Your task to perform on an android device: Show the shopping cart on target. Search for "razer thresher" on target, select the first entry, and add it to the cart. Image 0: 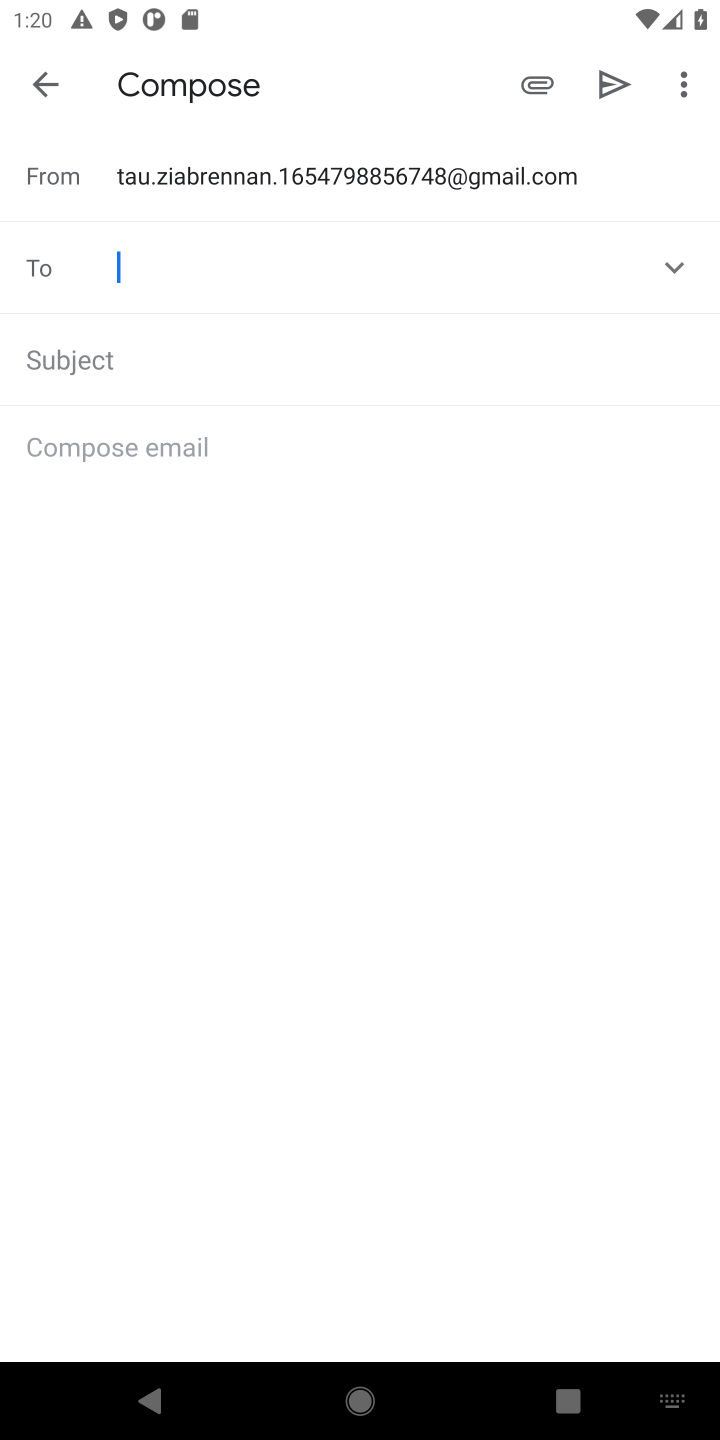
Step 0: press home button
Your task to perform on an android device: Show the shopping cart on target. Search for "razer thresher" on target, select the first entry, and add it to the cart. Image 1: 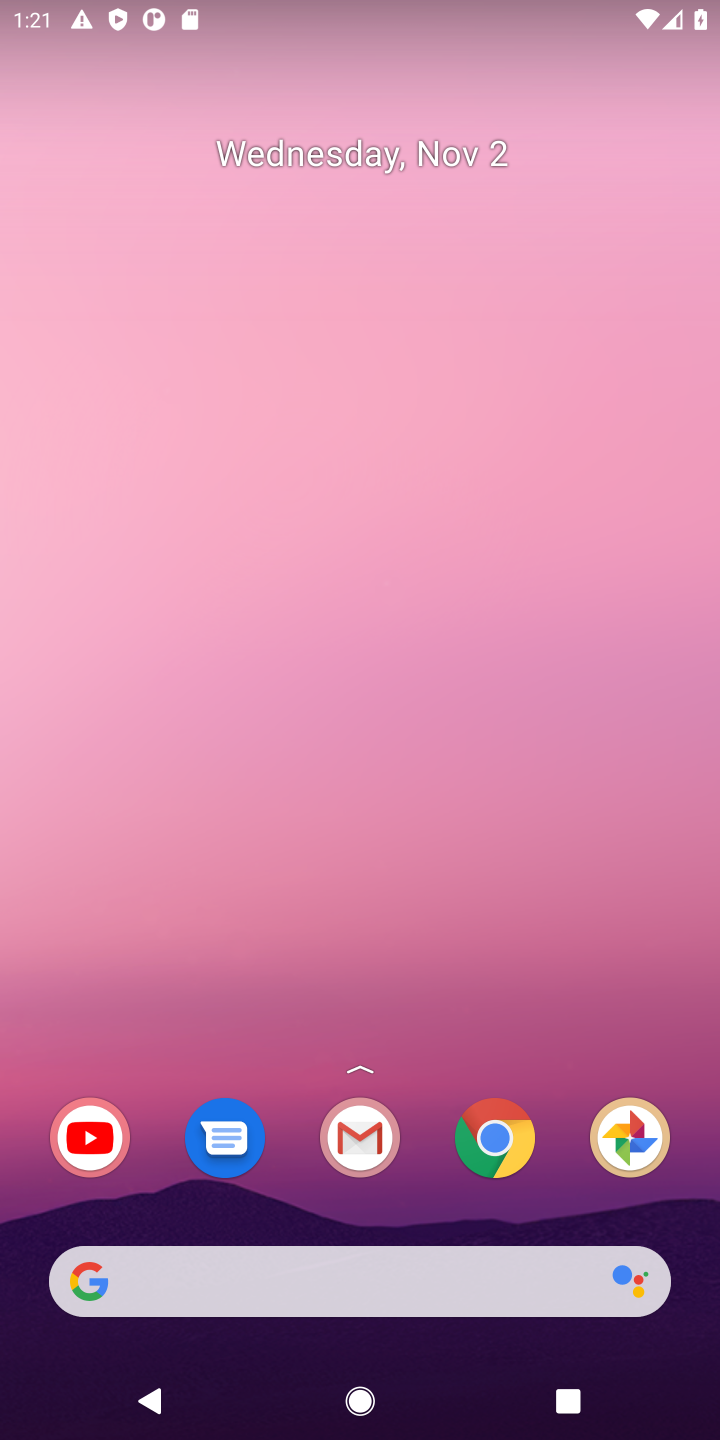
Step 1: click (153, 1294)
Your task to perform on an android device: Show the shopping cart on target. Search for "razer thresher" on target, select the first entry, and add it to the cart. Image 2: 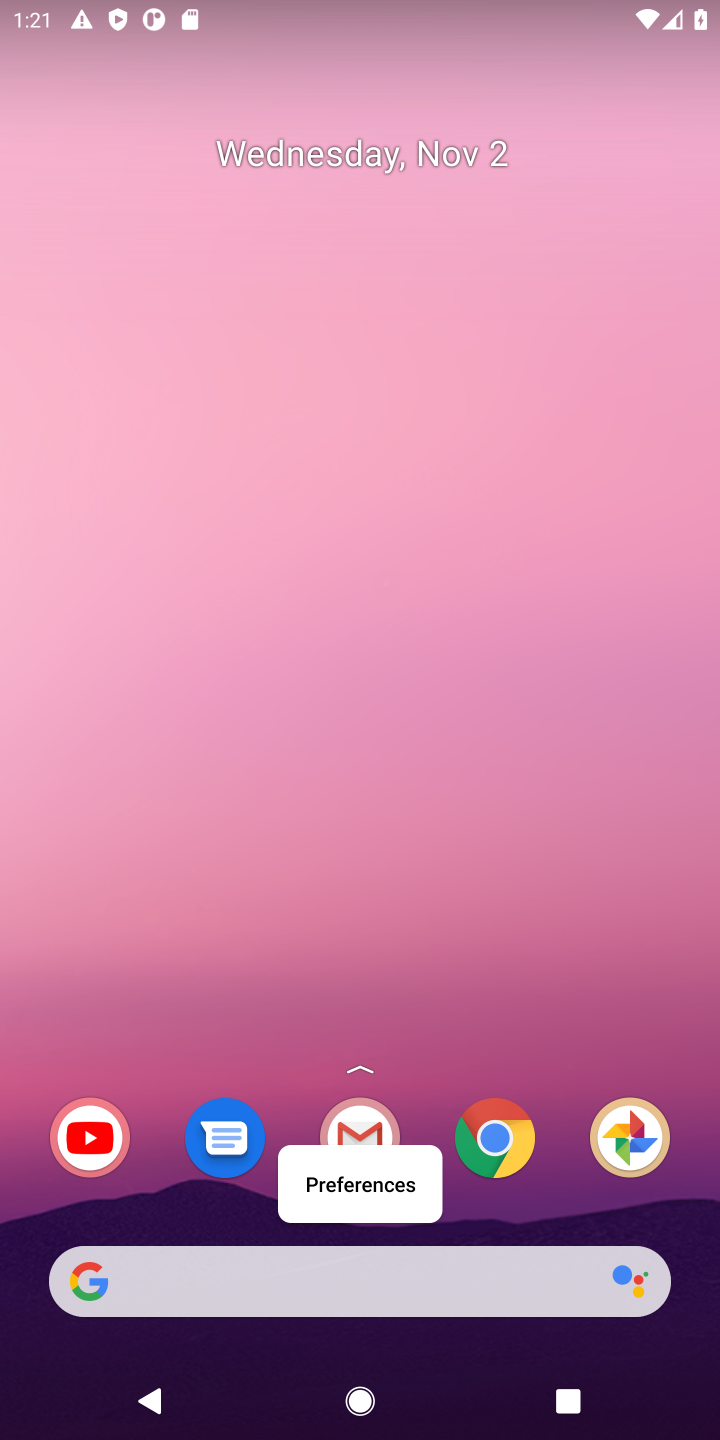
Step 2: click (150, 1270)
Your task to perform on an android device: Show the shopping cart on target. Search for "razer thresher" on target, select the first entry, and add it to the cart. Image 3: 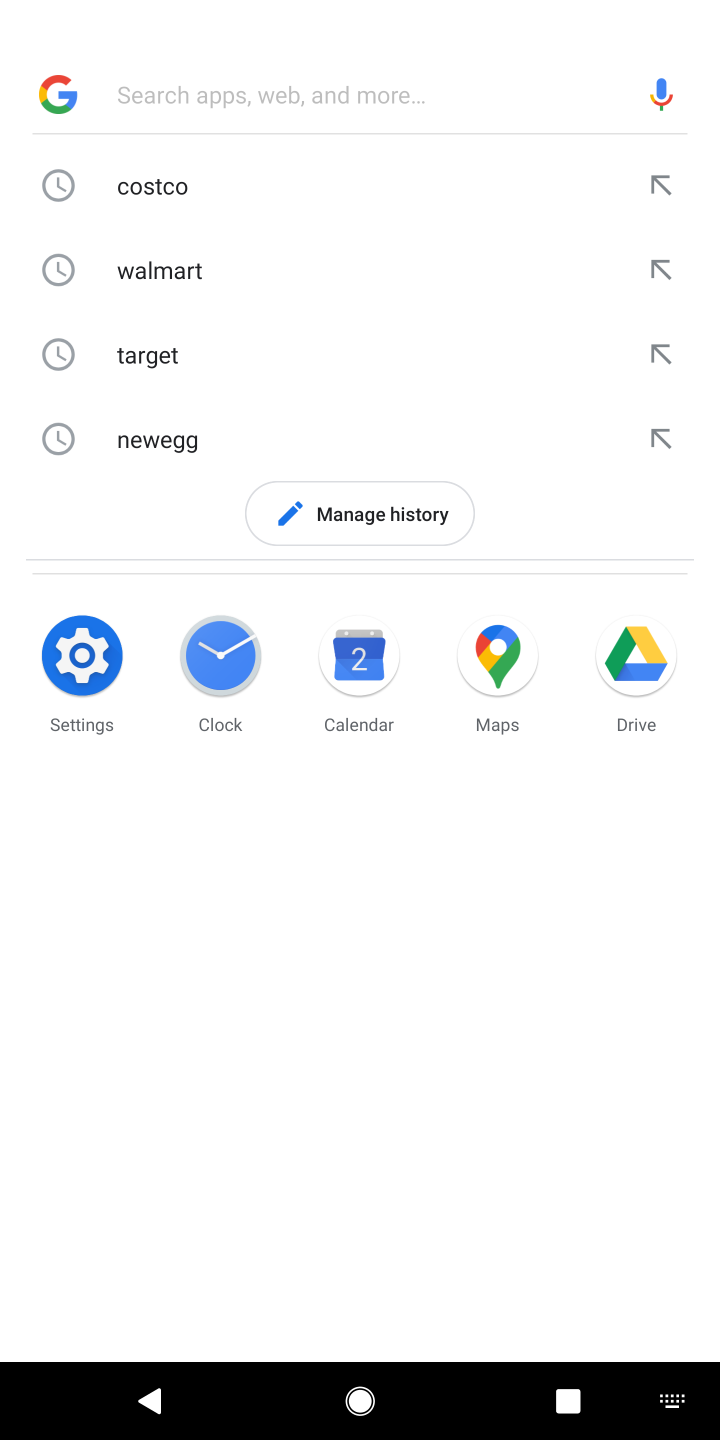
Step 3: press enter
Your task to perform on an android device: Show the shopping cart on target. Search for "razer thresher" on target, select the first entry, and add it to the cart. Image 4: 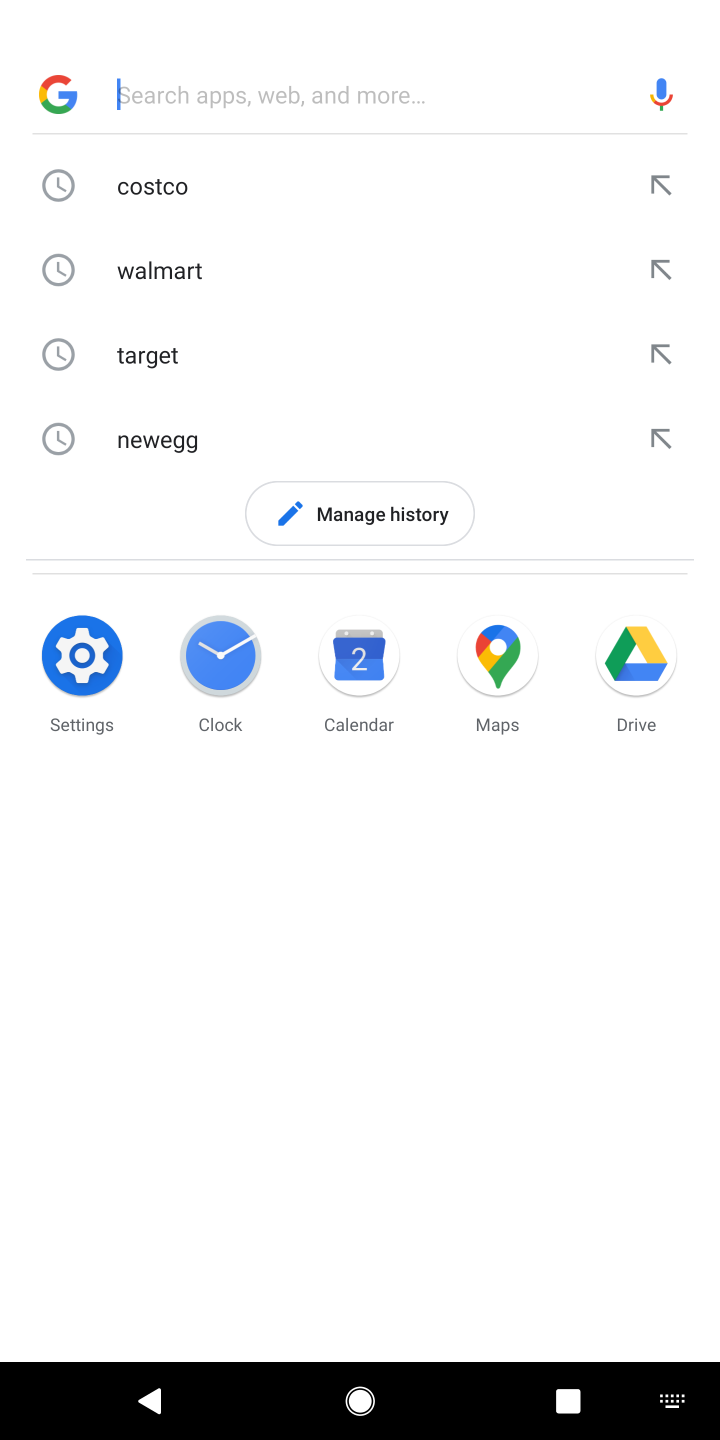
Step 4: type "target"
Your task to perform on an android device: Show the shopping cart on target. Search for "razer thresher" on target, select the first entry, and add it to the cart. Image 5: 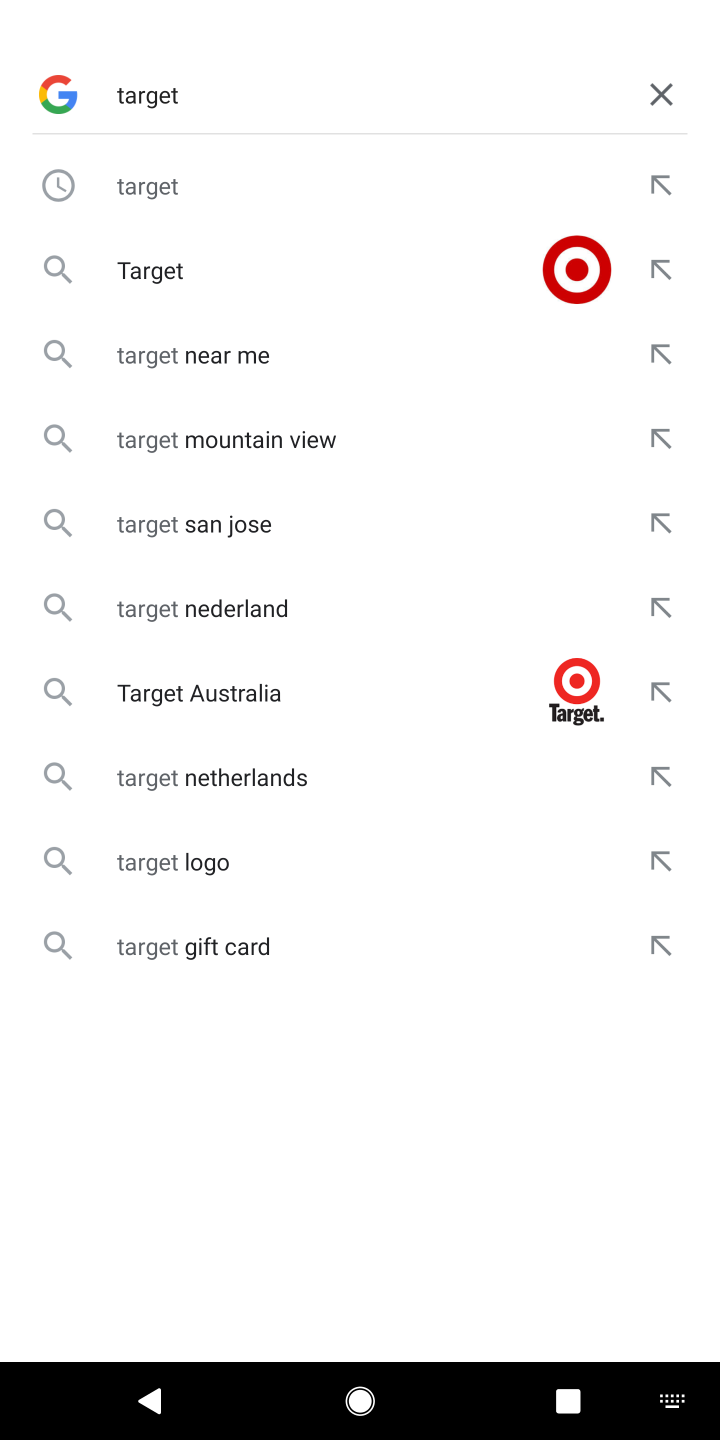
Step 5: press enter
Your task to perform on an android device: Show the shopping cart on target. Search for "razer thresher" on target, select the first entry, and add it to the cart. Image 6: 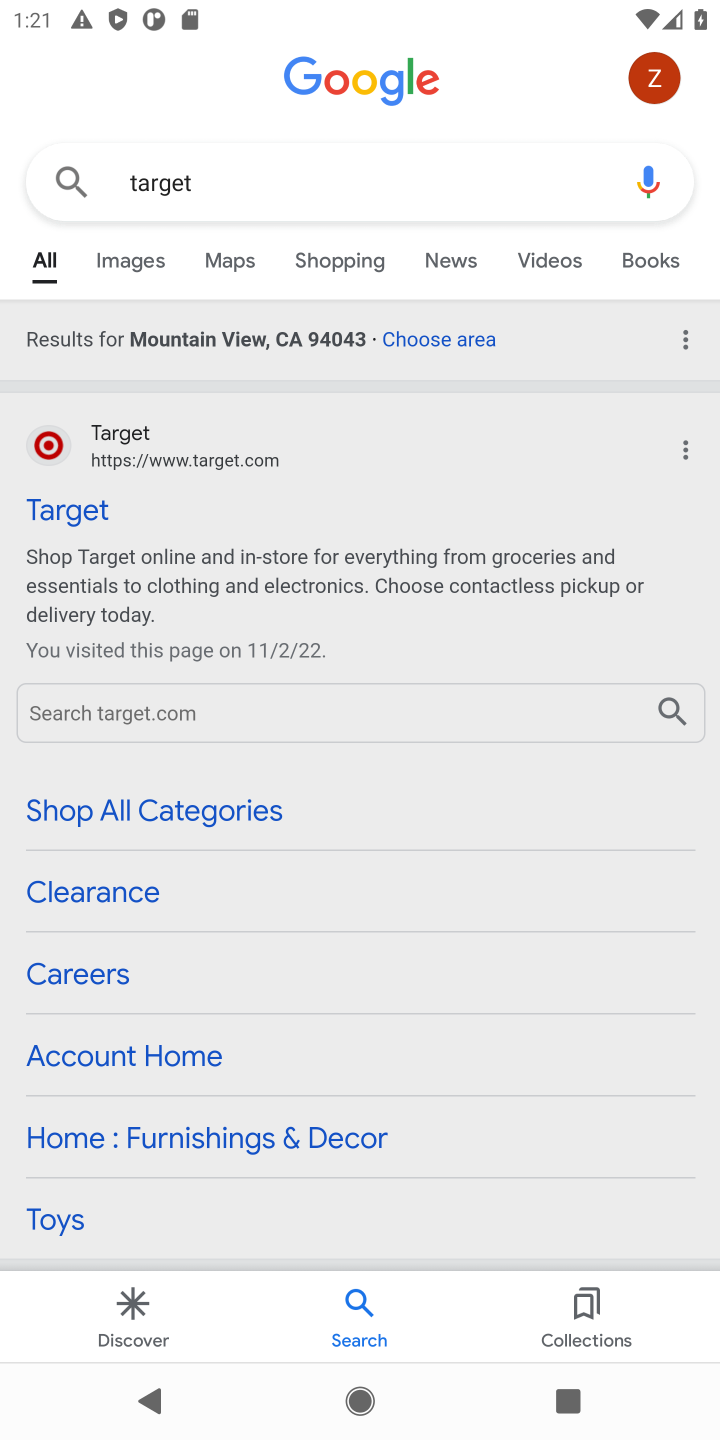
Step 6: click (71, 513)
Your task to perform on an android device: Show the shopping cart on target. Search for "razer thresher" on target, select the first entry, and add it to the cart. Image 7: 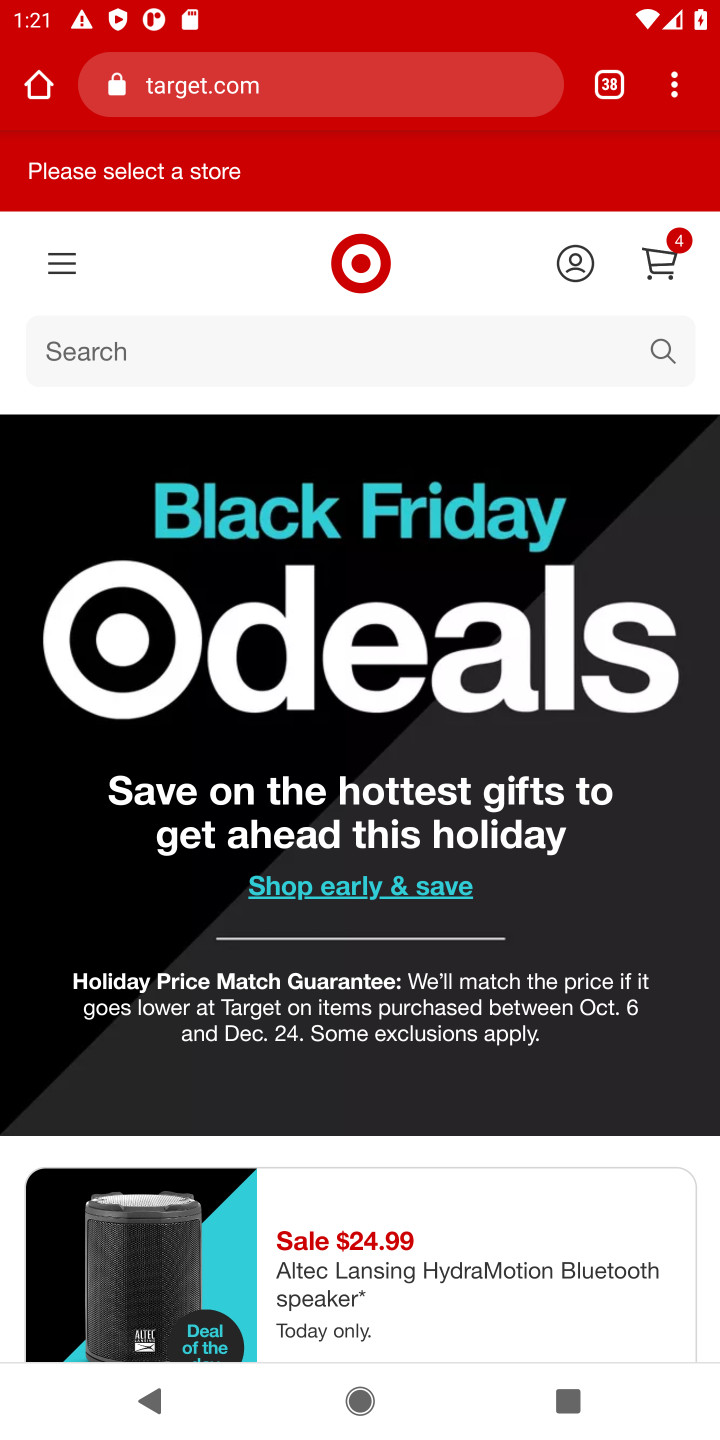
Step 7: click (182, 358)
Your task to perform on an android device: Show the shopping cart on target. Search for "razer thresher" on target, select the first entry, and add it to the cart. Image 8: 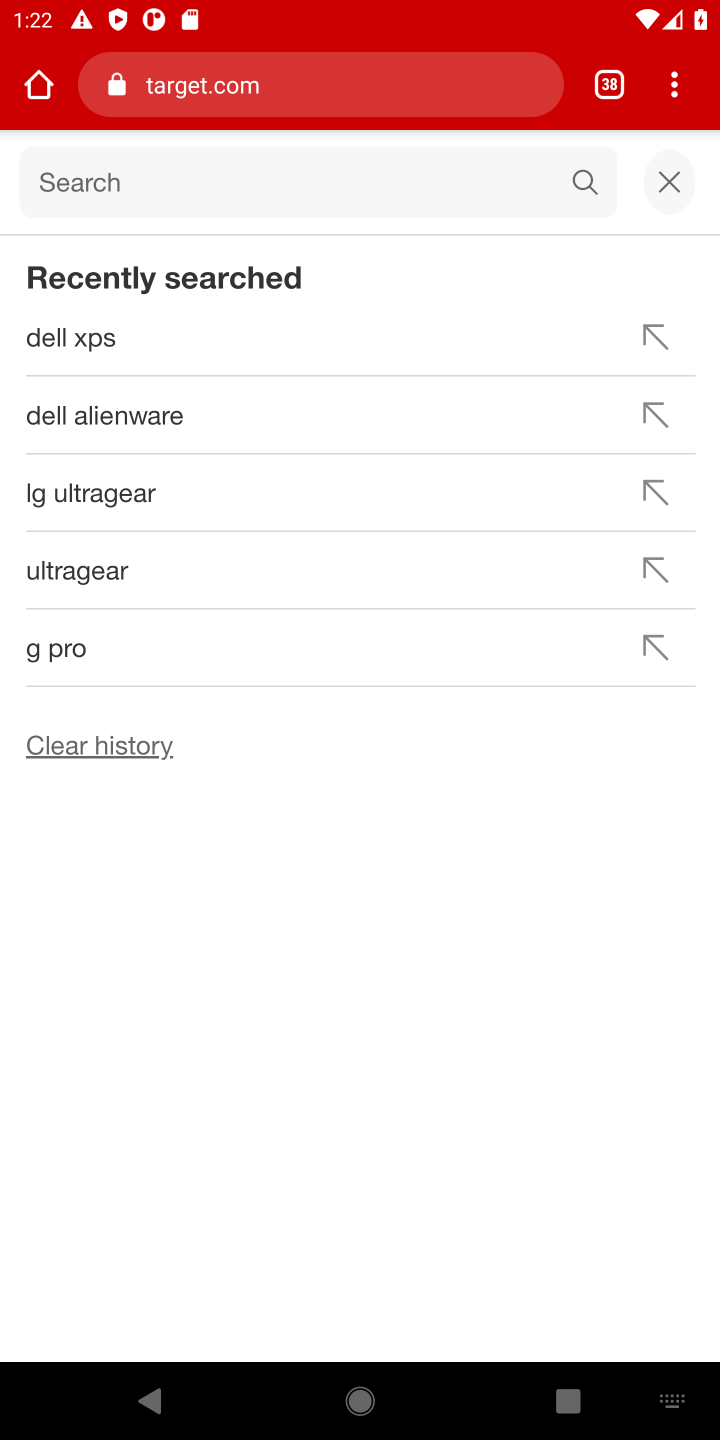
Step 8: type "razer thresher"
Your task to perform on an android device: Show the shopping cart on target. Search for "razer thresher" on target, select the first entry, and add it to the cart. Image 9: 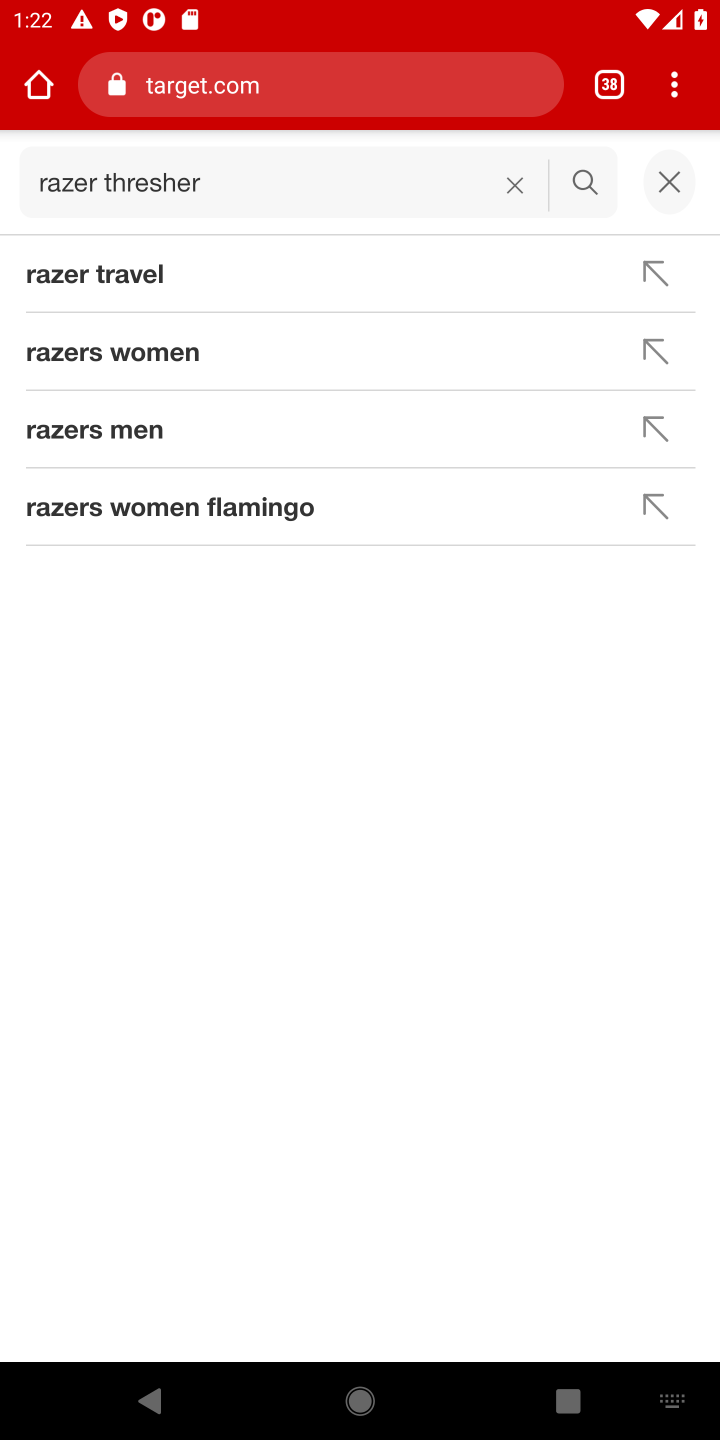
Step 9: click (594, 177)
Your task to perform on an android device: Show the shopping cart on target. Search for "razer thresher" on target, select the first entry, and add it to the cart. Image 10: 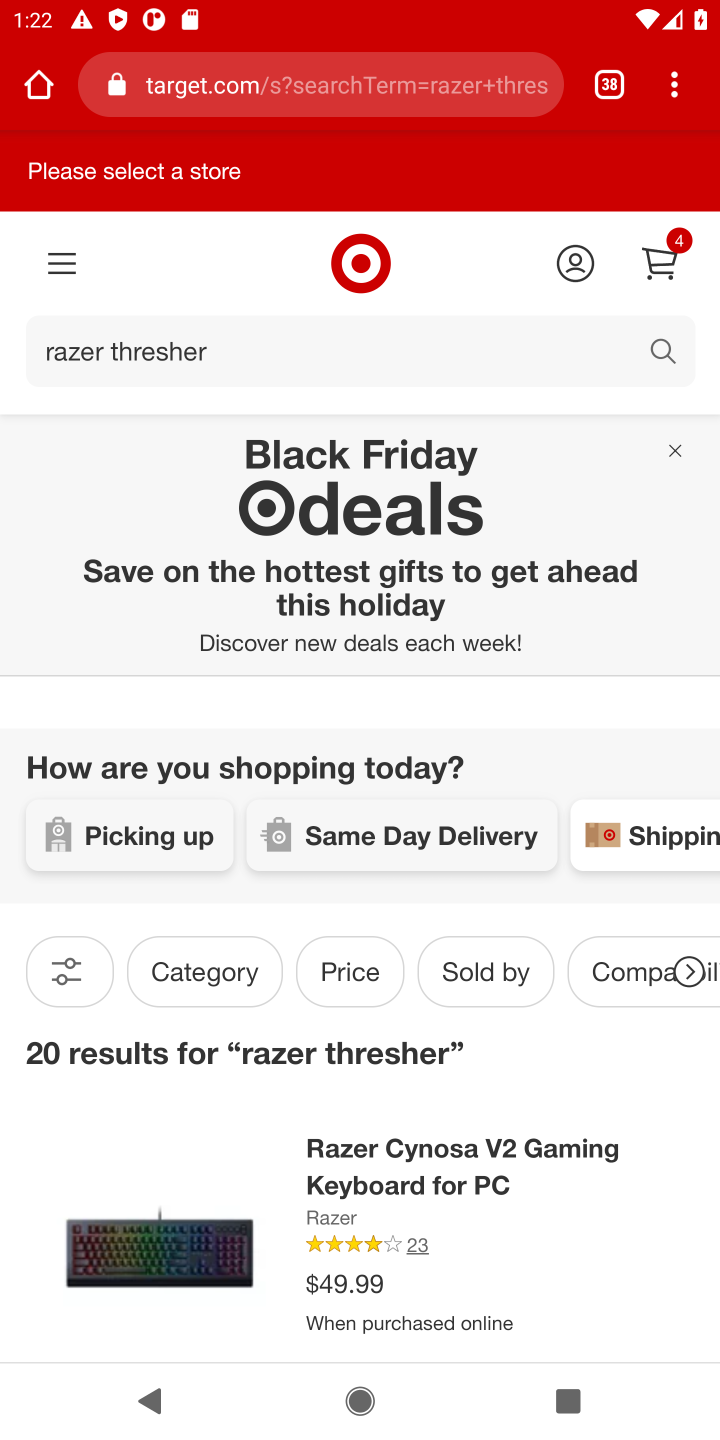
Step 10: task complete